Your task to perform on an android device: Open Yahoo.com Image 0: 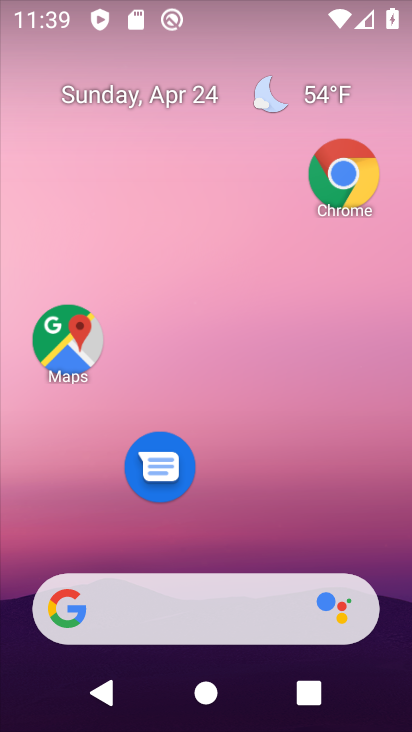
Step 0: click (397, 639)
Your task to perform on an android device: Open Yahoo.com Image 1: 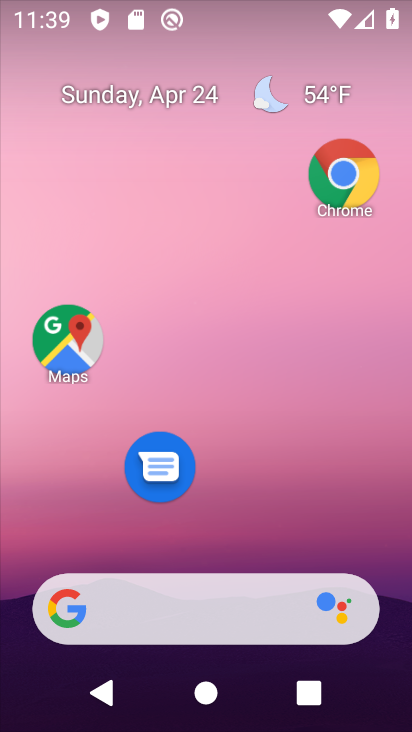
Step 1: drag from (199, 543) to (151, 127)
Your task to perform on an android device: Open Yahoo.com Image 2: 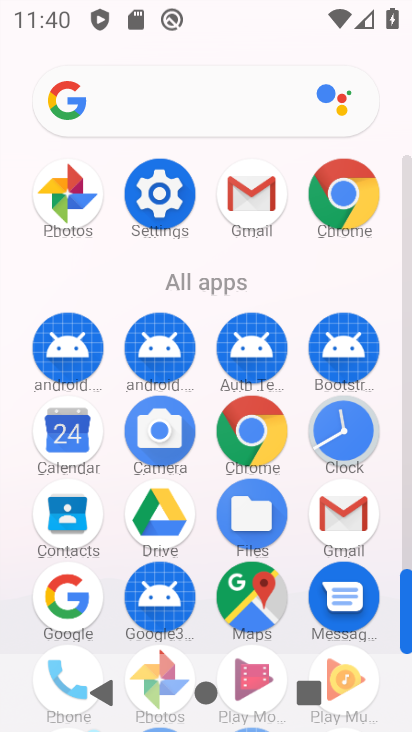
Step 2: click (168, 109)
Your task to perform on an android device: Open Yahoo.com Image 3: 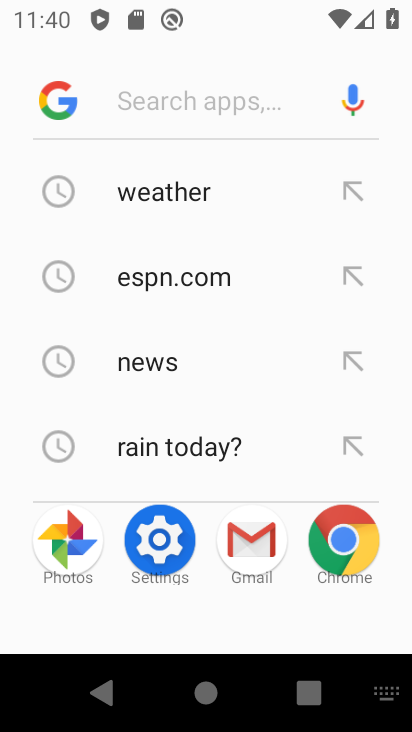
Step 3: drag from (204, 437) to (190, 144)
Your task to perform on an android device: Open Yahoo.com Image 4: 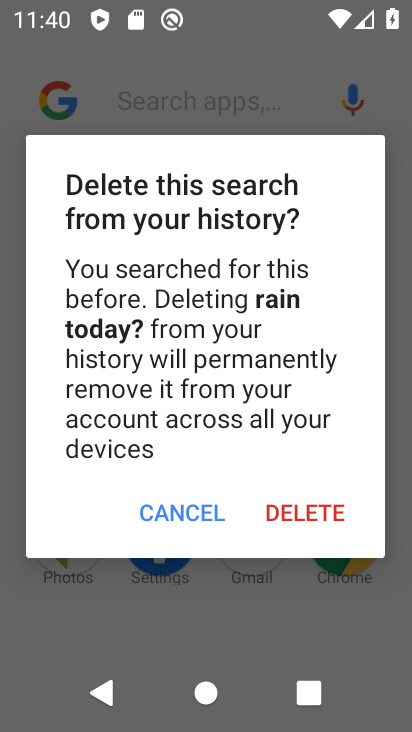
Step 4: click (193, 503)
Your task to perform on an android device: Open Yahoo.com Image 5: 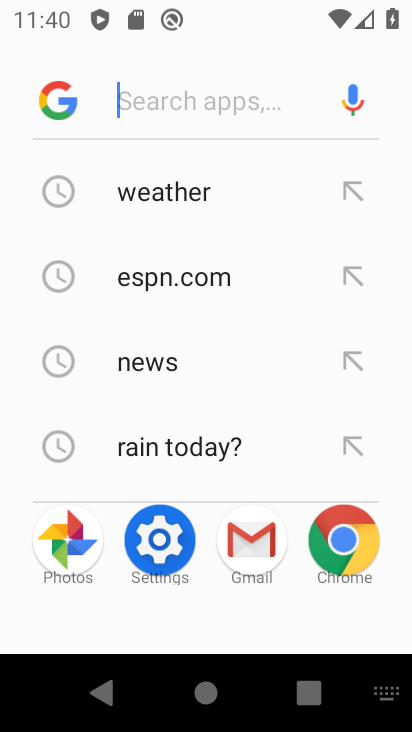
Step 5: type "yahoo"
Your task to perform on an android device: Open Yahoo.com Image 6: 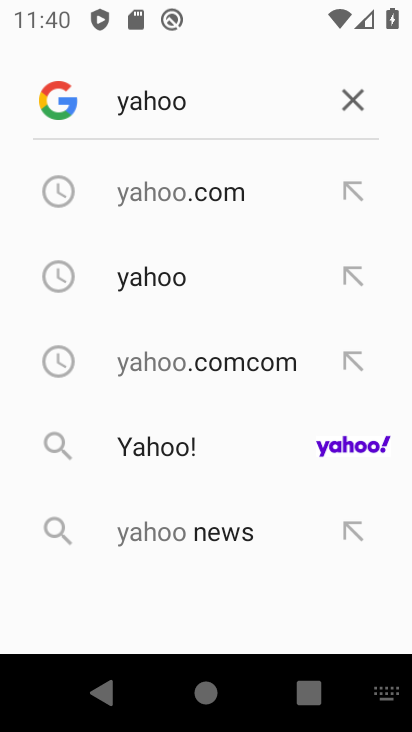
Step 6: click (177, 188)
Your task to perform on an android device: Open Yahoo.com Image 7: 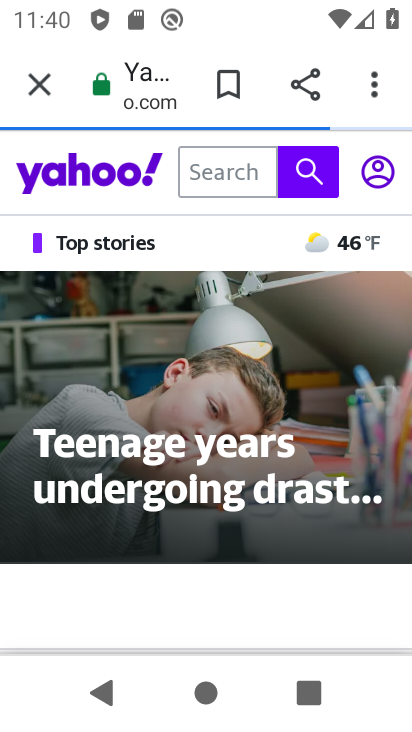
Step 7: task complete